Your task to perform on an android device: What's on the menu at Starbucks? Image 0: 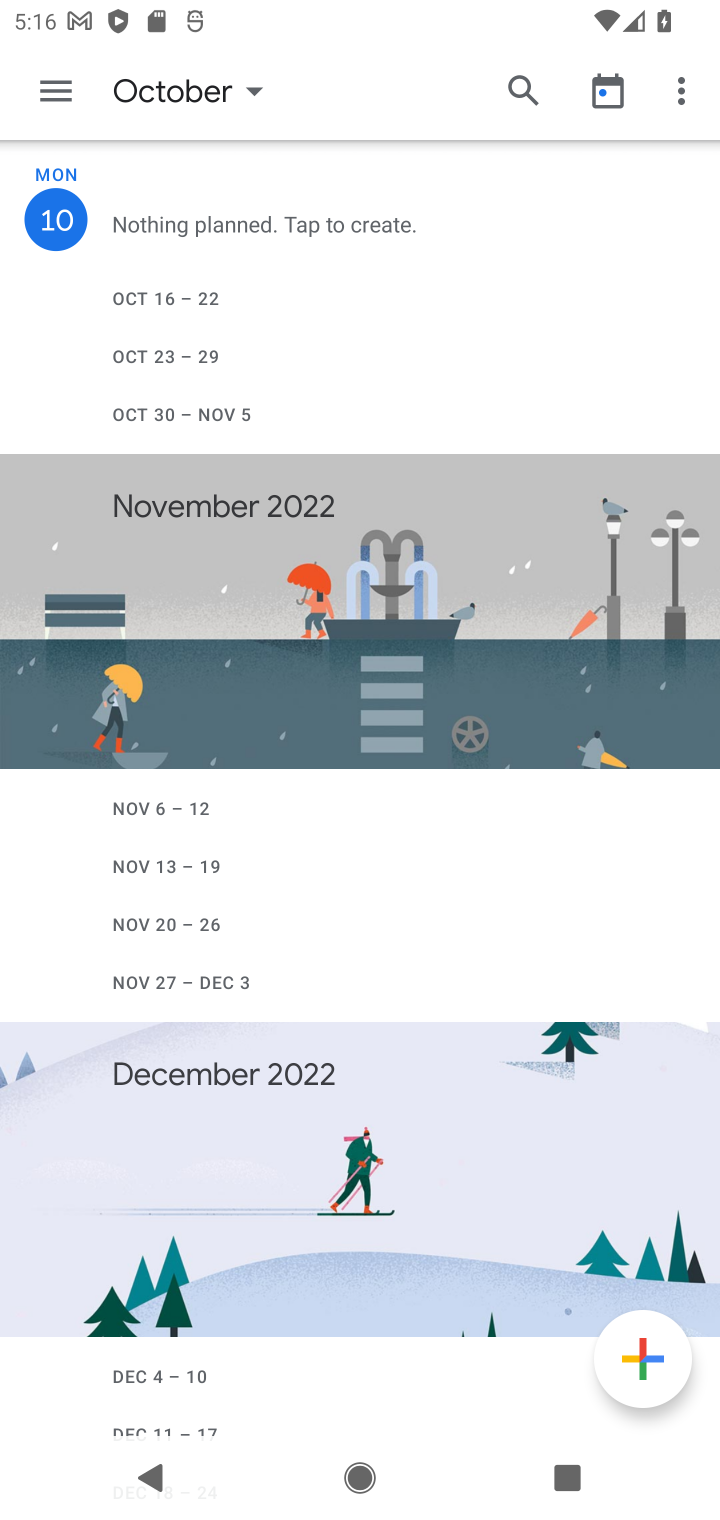
Step 0: press home button
Your task to perform on an android device: What's on the menu at Starbucks? Image 1: 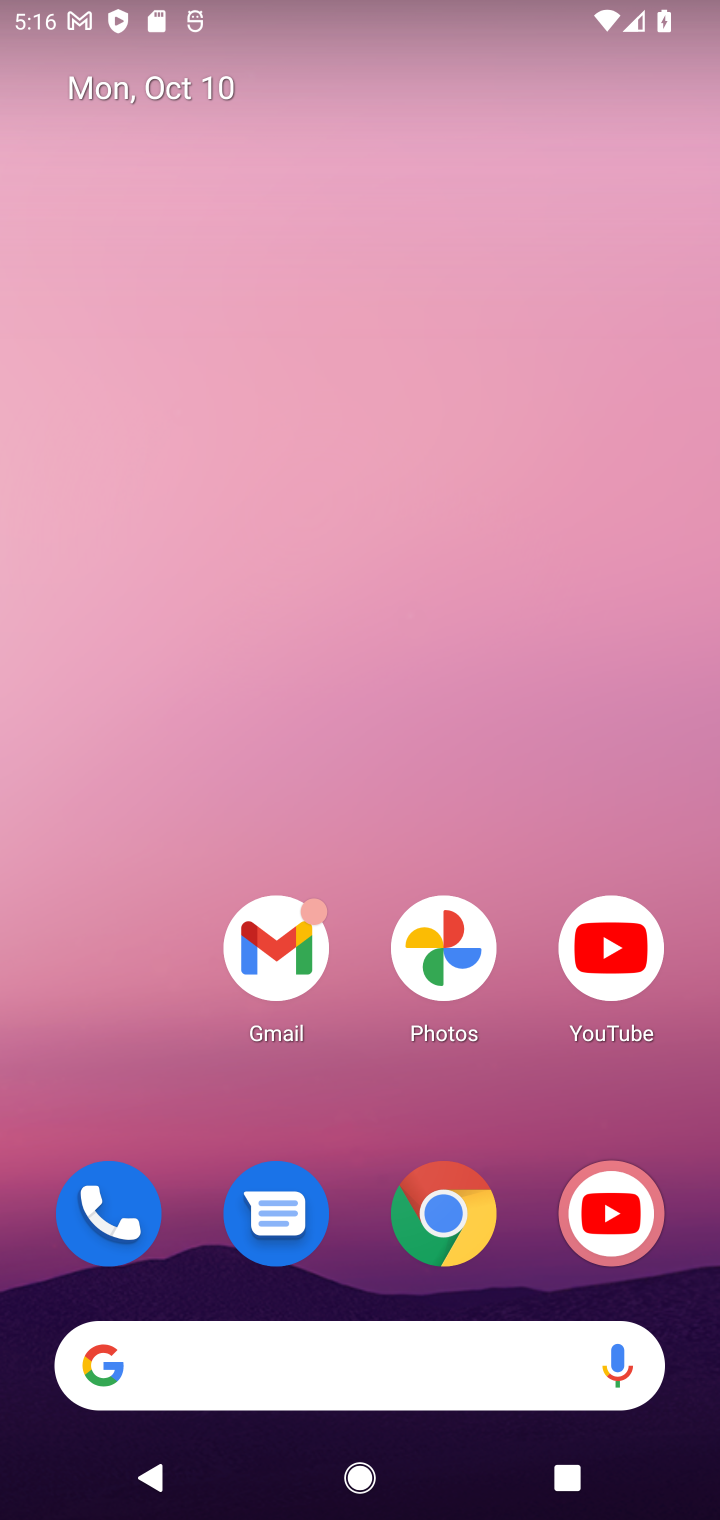
Step 1: drag from (258, 748) to (352, 92)
Your task to perform on an android device: What's on the menu at Starbucks? Image 2: 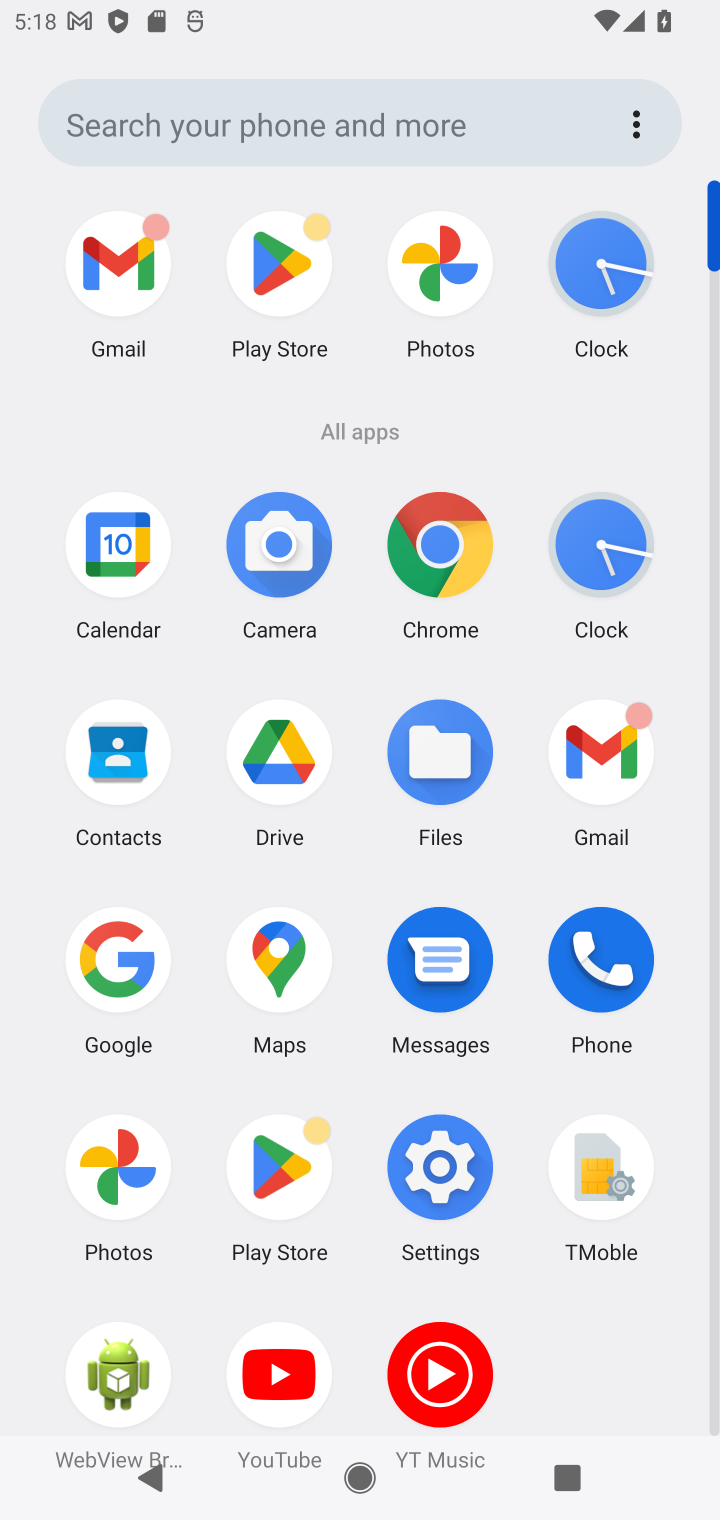
Step 2: click (100, 940)
Your task to perform on an android device: What's on the menu at Starbucks? Image 3: 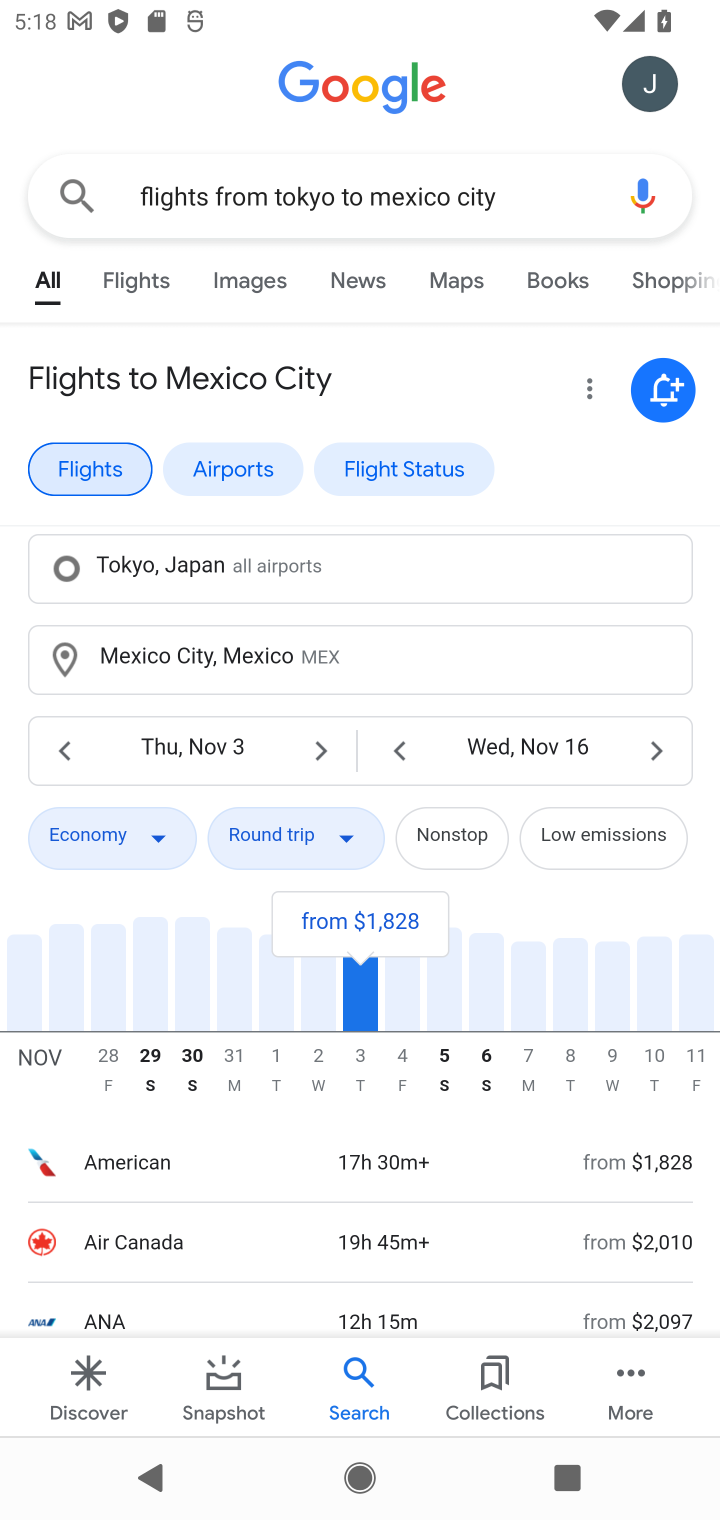
Step 3: click (531, 165)
Your task to perform on an android device: What's on the menu at Starbucks? Image 4: 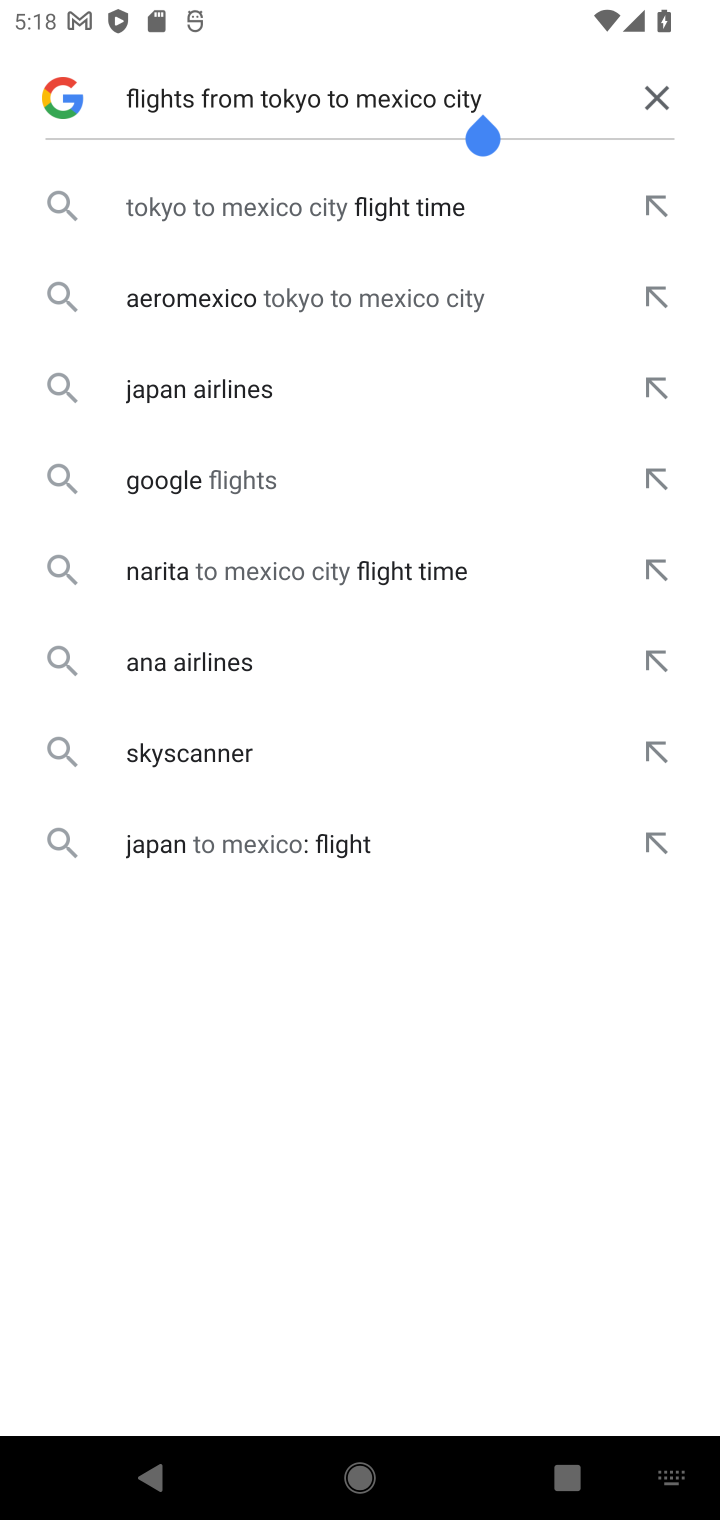
Step 4: click (655, 91)
Your task to perform on an android device: What's on the menu at Starbucks? Image 5: 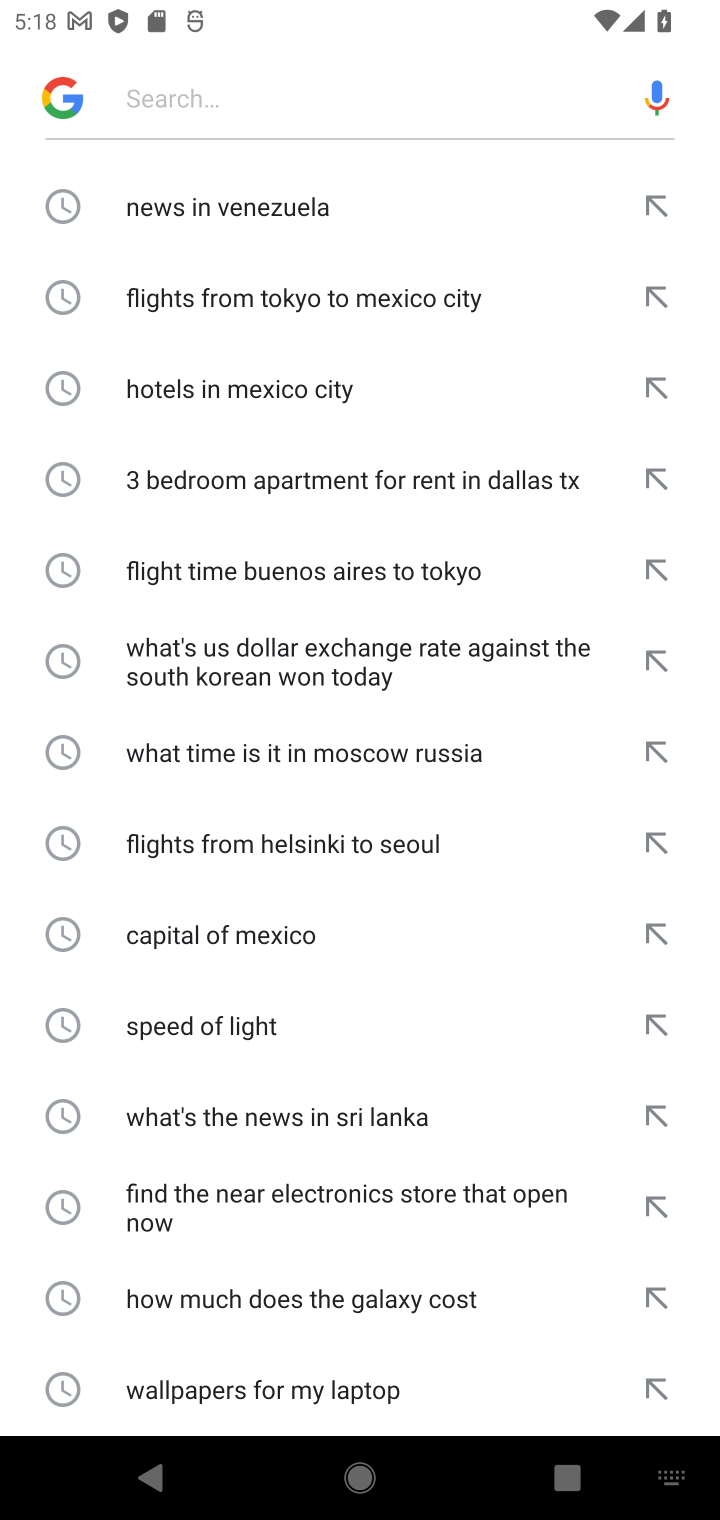
Step 5: click (233, 95)
Your task to perform on an android device: What's on the menu at Starbucks? Image 6: 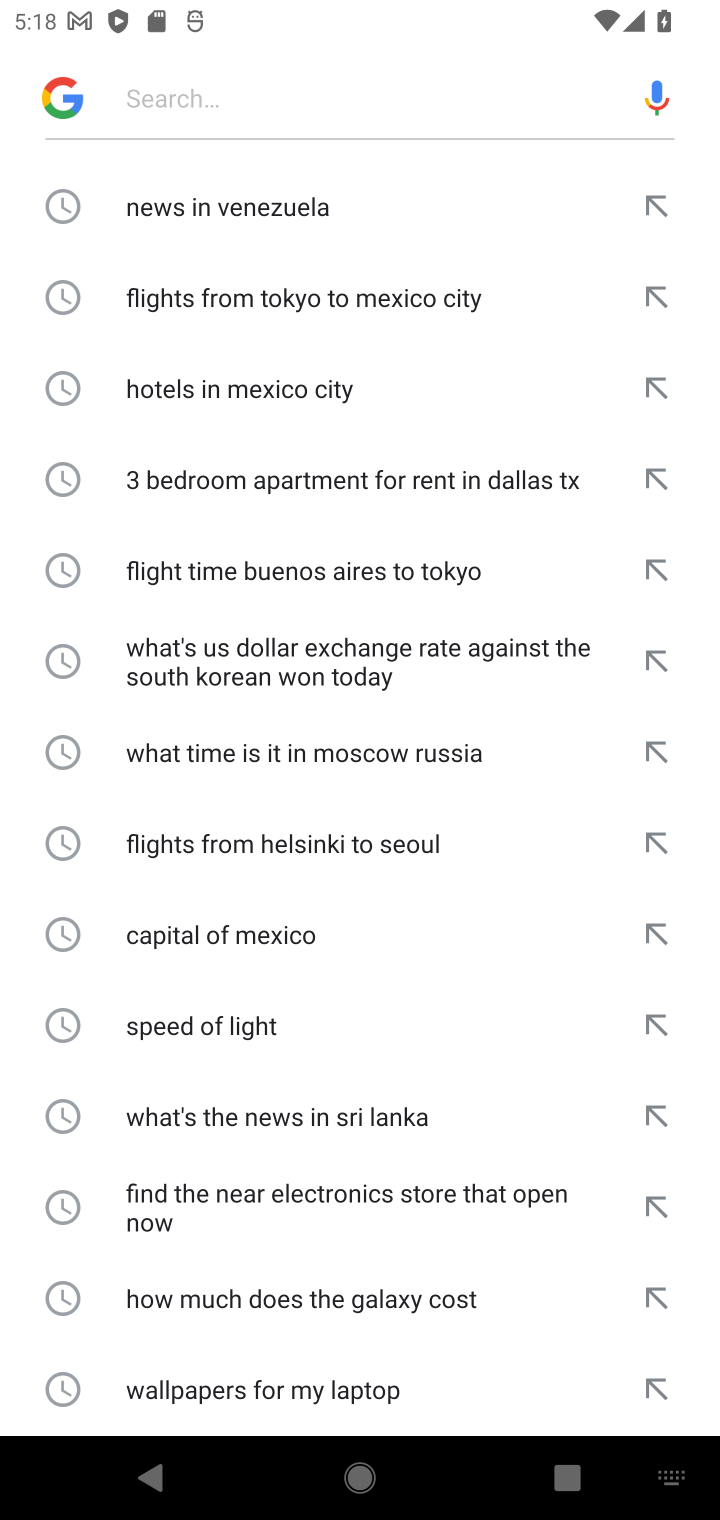
Step 6: type "What's on the menu at Starbucks"
Your task to perform on an android device: What's on the menu at Starbucks? Image 7: 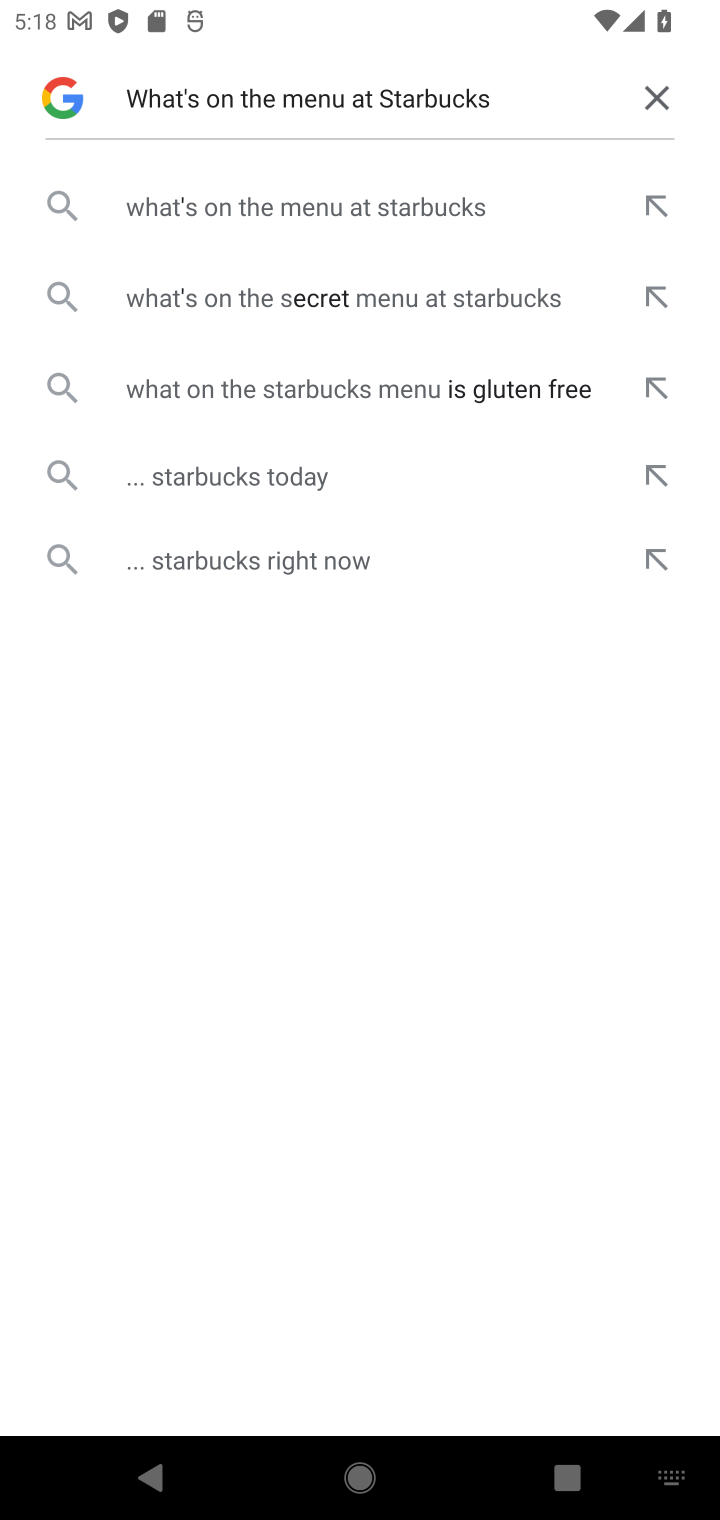
Step 7: click (199, 162)
Your task to perform on an android device: What's on the menu at Starbucks? Image 8: 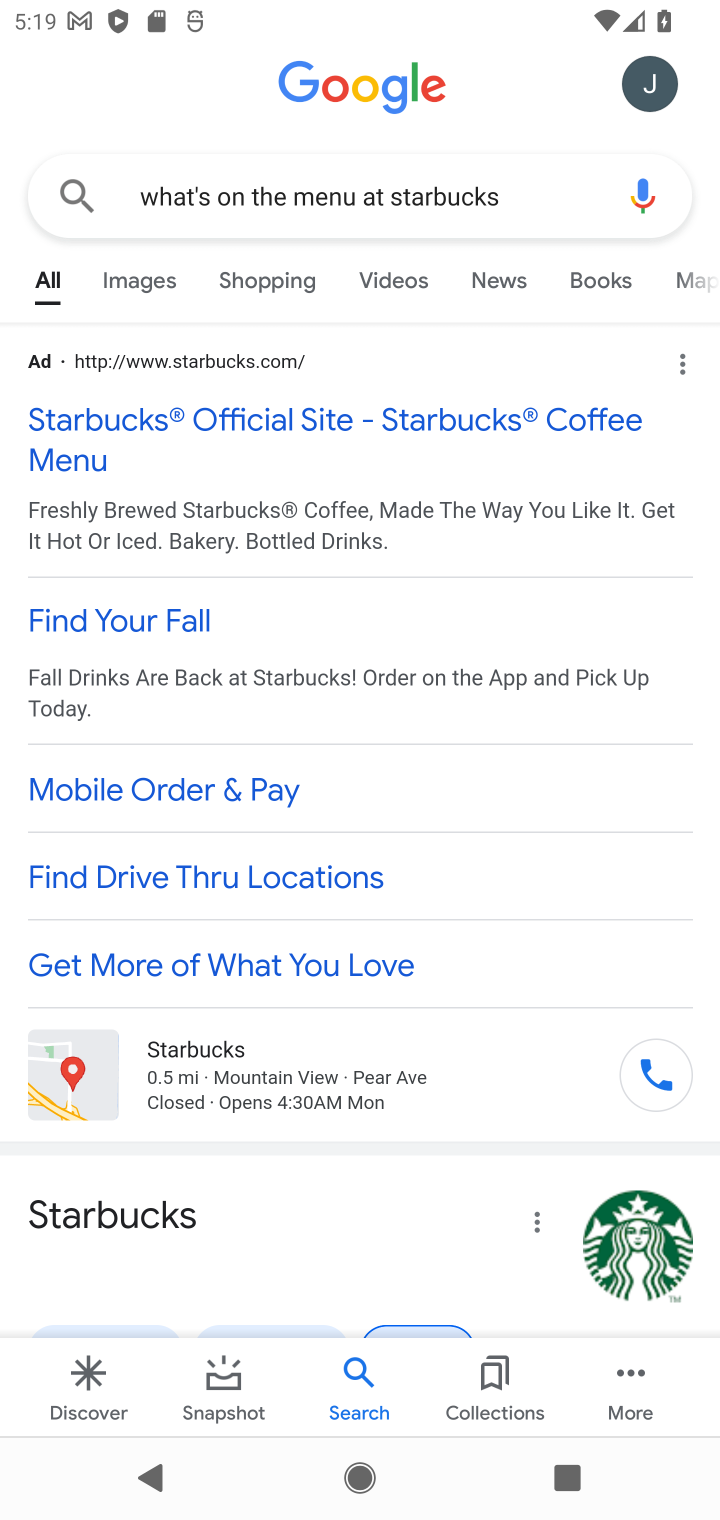
Step 8: task complete